Your task to perform on an android device: change the clock display to show seconds Image 0: 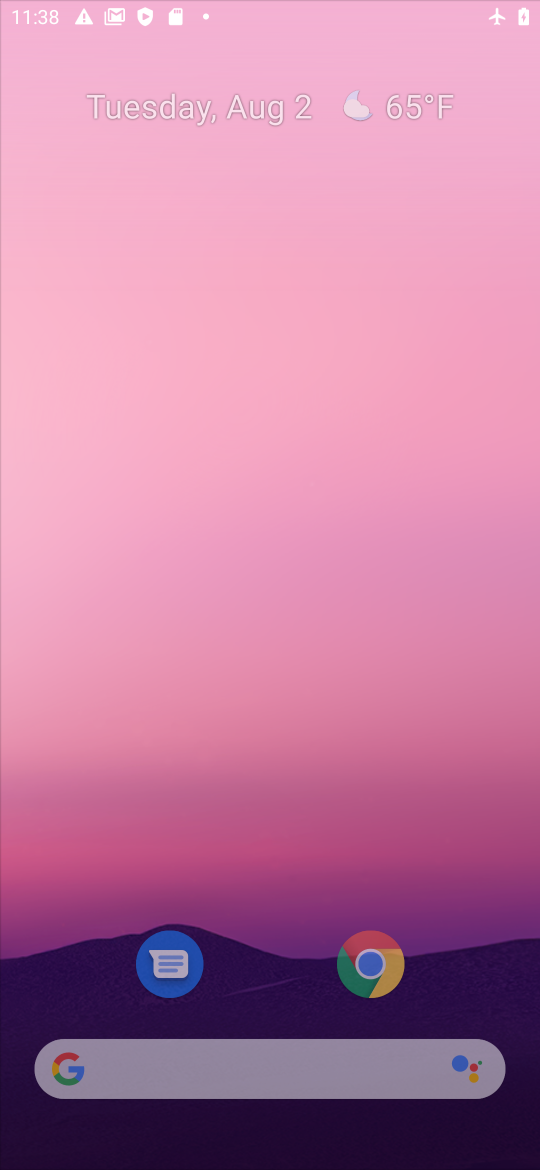
Step 0: press enter
Your task to perform on an android device: change the clock display to show seconds Image 1: 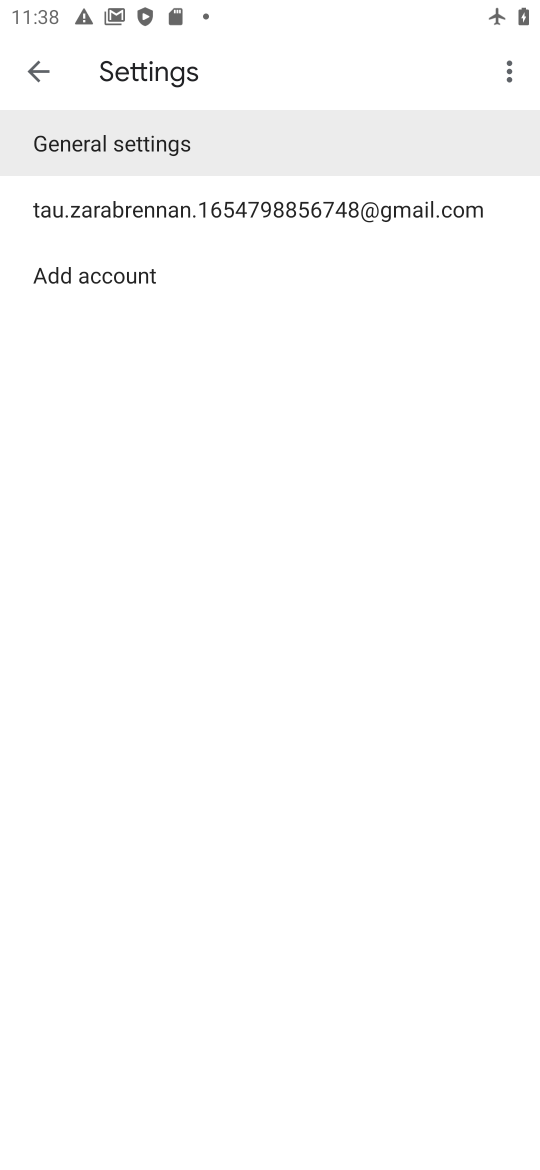
Step 1: press home button
Your task to perform on an android device: change the clock display to show seconds Image 2: 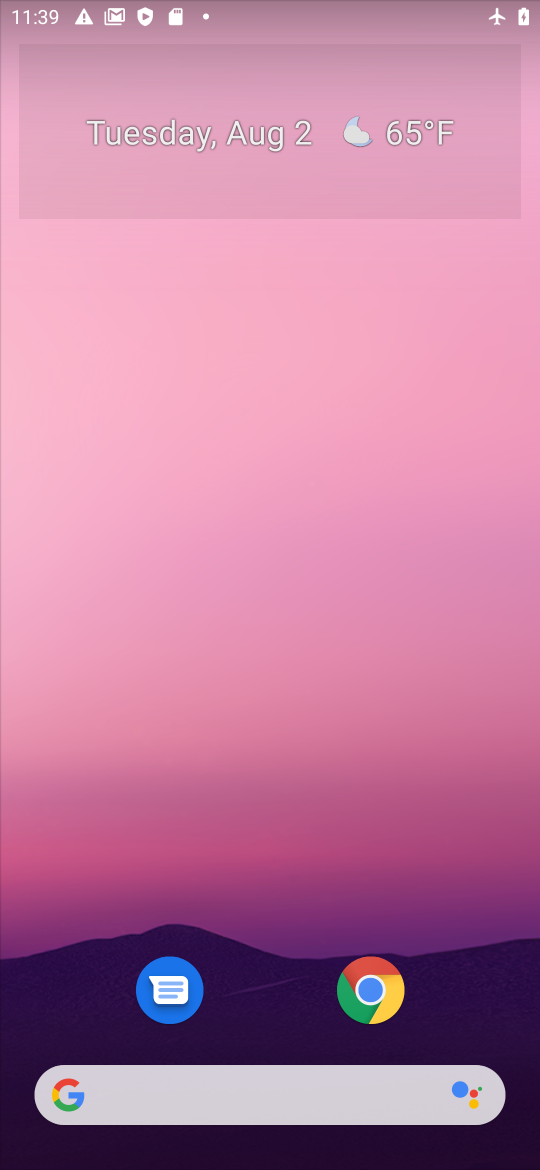
Step 2: drag from (277, 927) to (351, 0)
Your task to perform on an android device: change the clock display to show seconds Image 3: 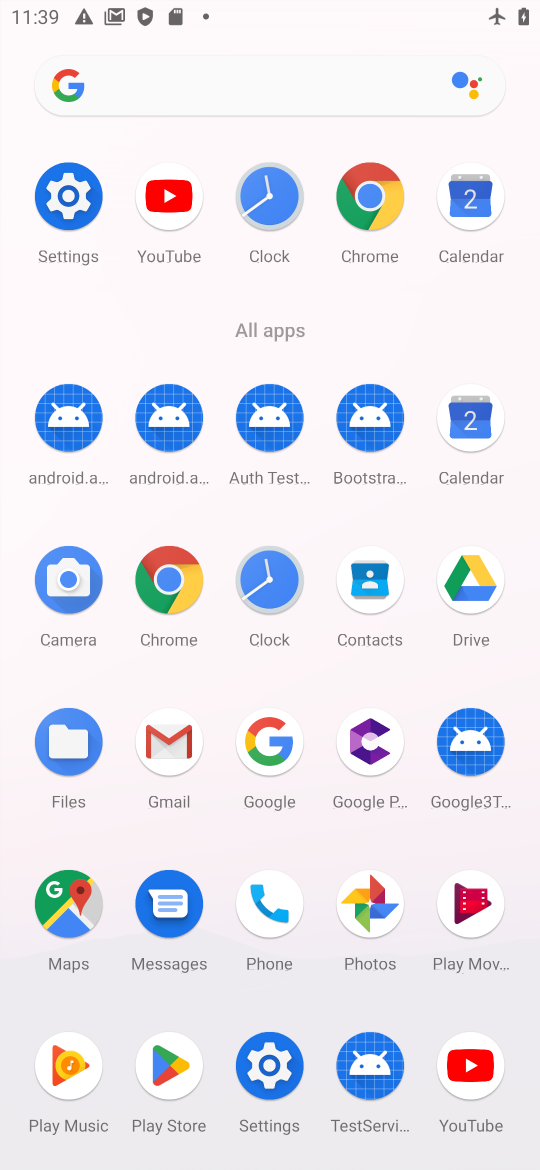
Step 3: click (259, 580)
Your task to perform on an android device: change the clock display to show seconds Image 4: 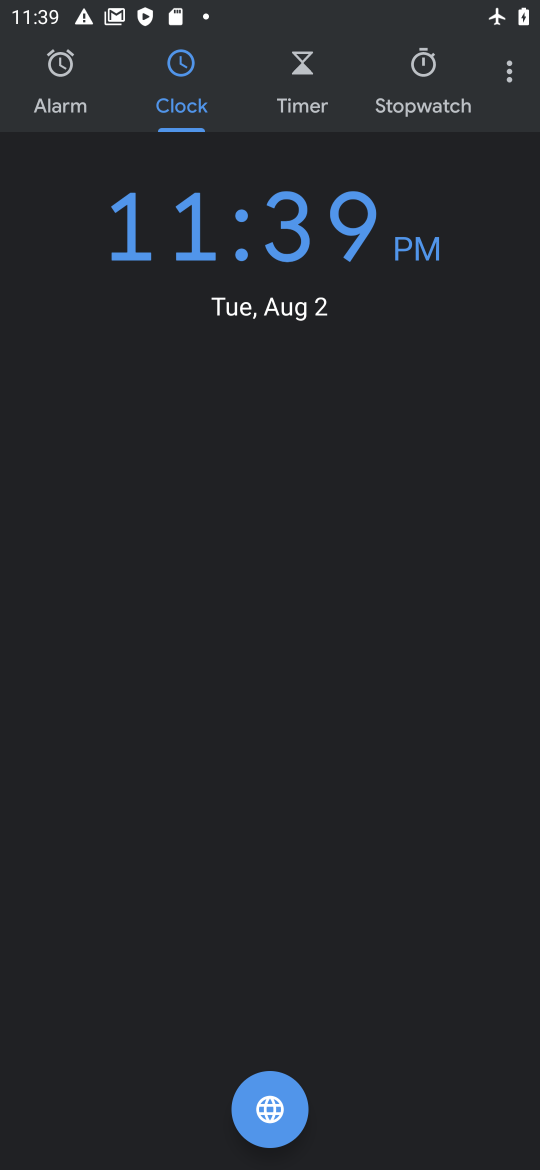
Step 4: click (507, 61)
Your task to perform on an android device: change the clock display to show seconds Image 5: 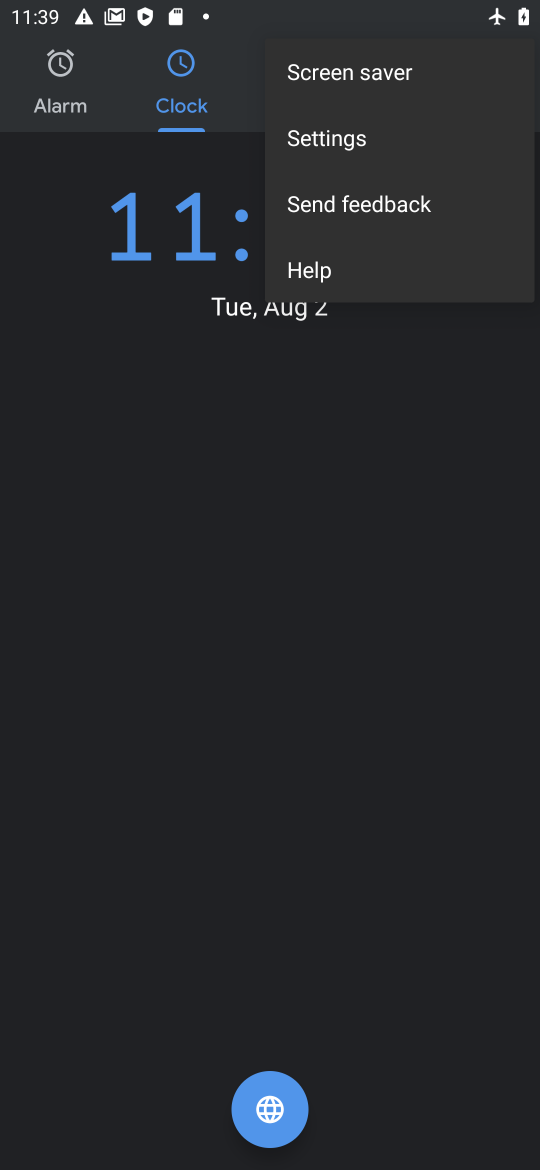
Step 5: click (323, 147)
Your task to perform on an android device: change the clock display to show seconds Image 6: 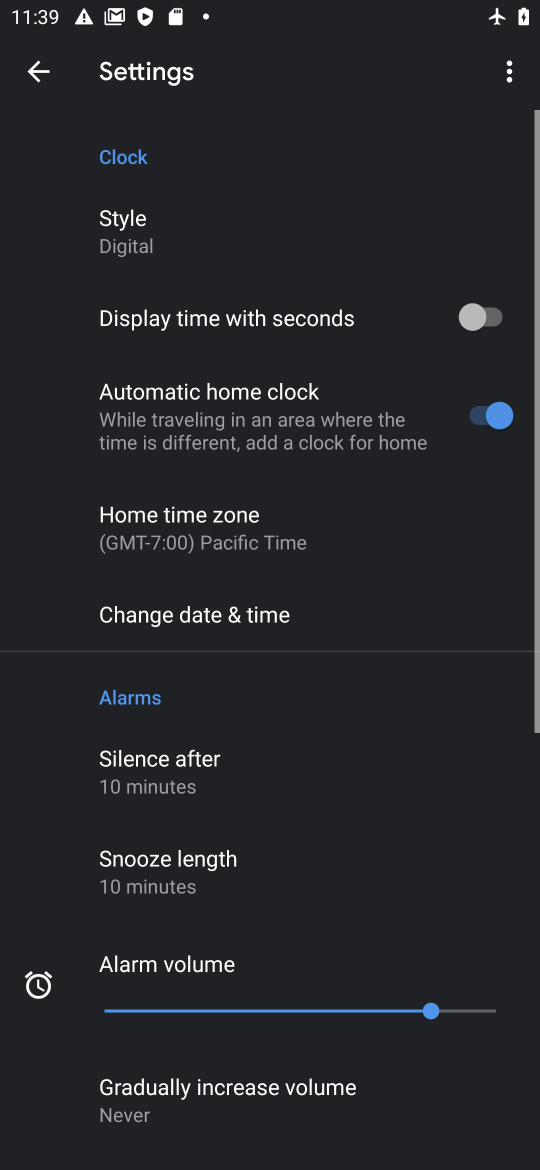
Step 6: click (143, 254)
Your task to perform on an android device: change the clock display to show seconds Image 7: 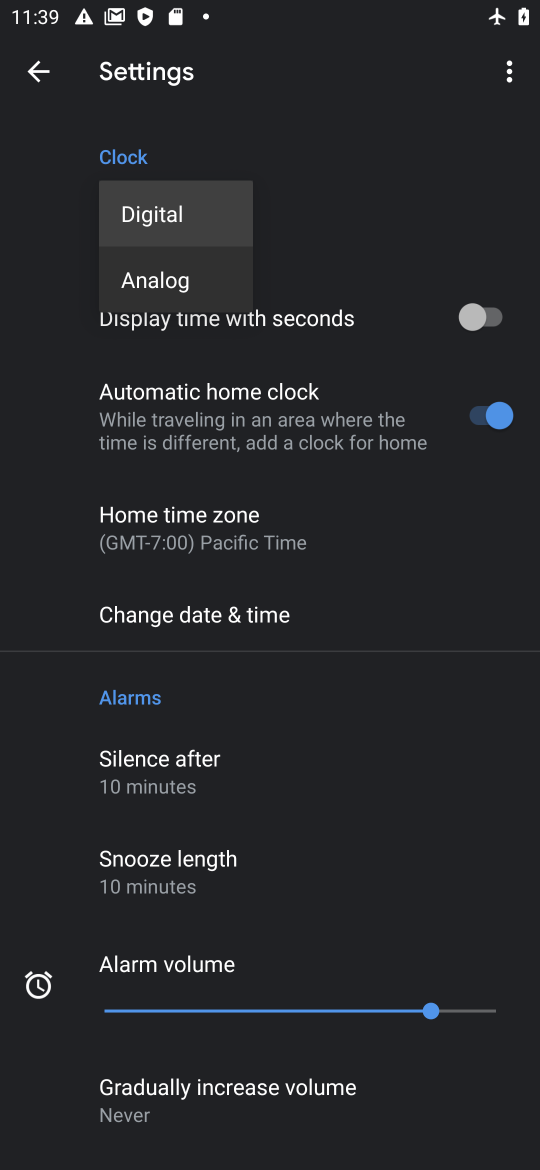
Step 7: click (168, 282)
Your task to perform on an android device: change the clock display to show seconds Image 8: 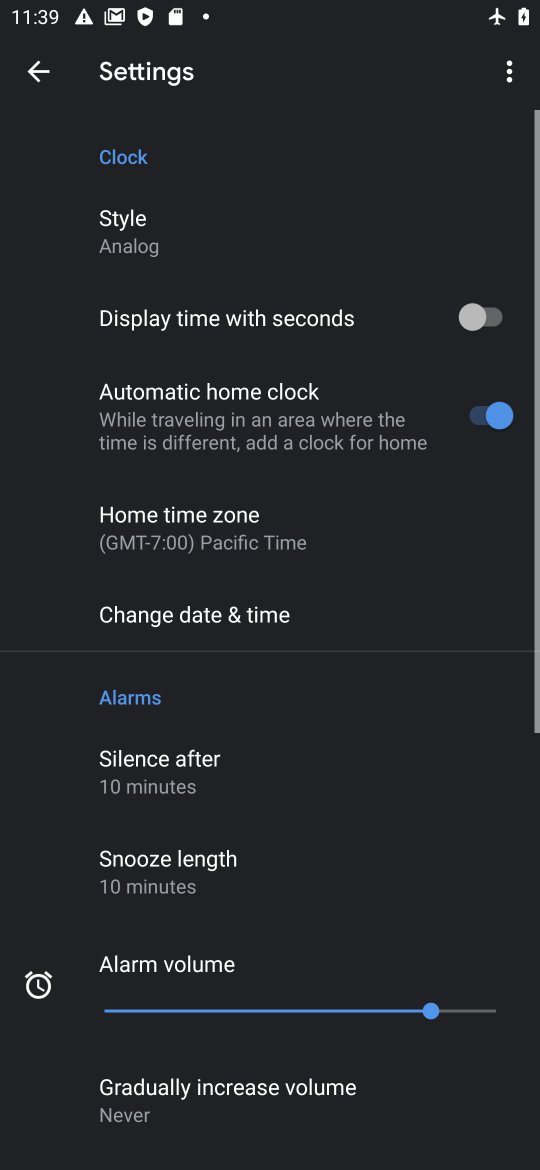
Step 8: click (494, 311)
Your task to perform on an android device: change the clock display to show seconds Image 9: 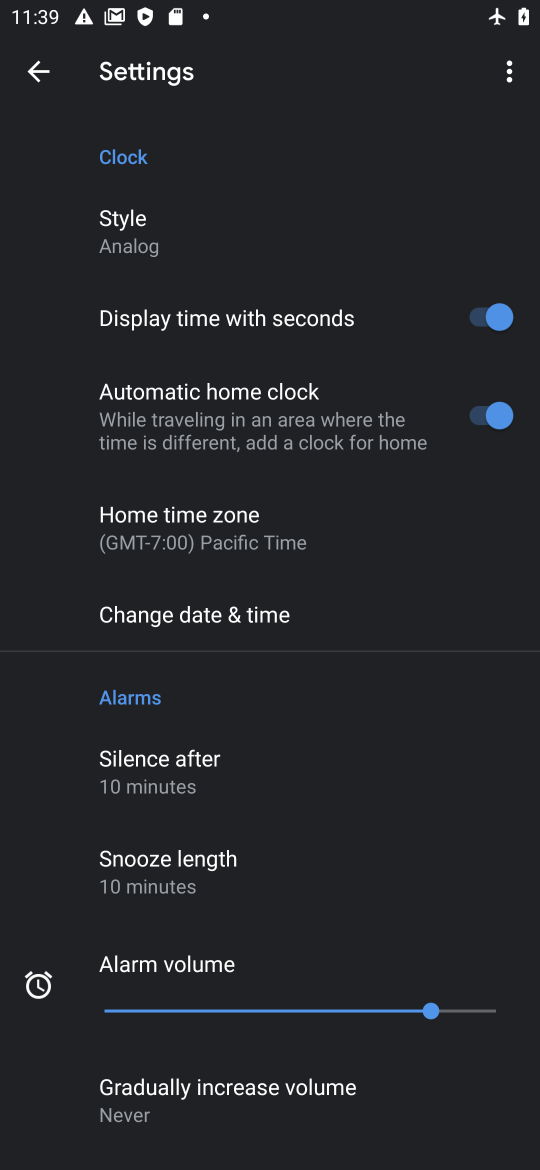
Step 9: task complete